Your task to perform on an android device: Open Yahoo.com Image 0: 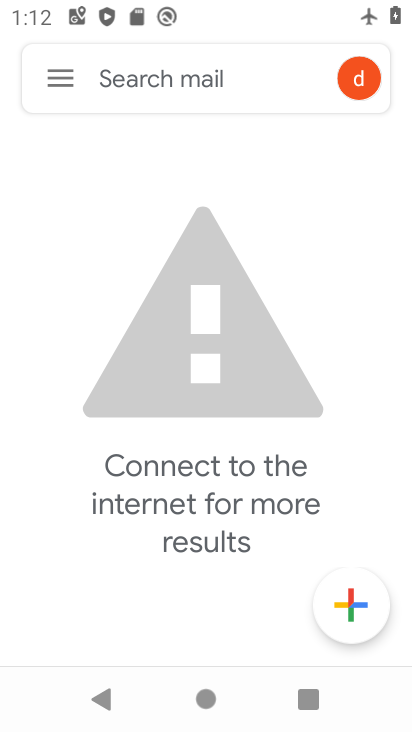
Step 0: press home button
Your task to perform on an android device: Open Yahoo.com Image 1: 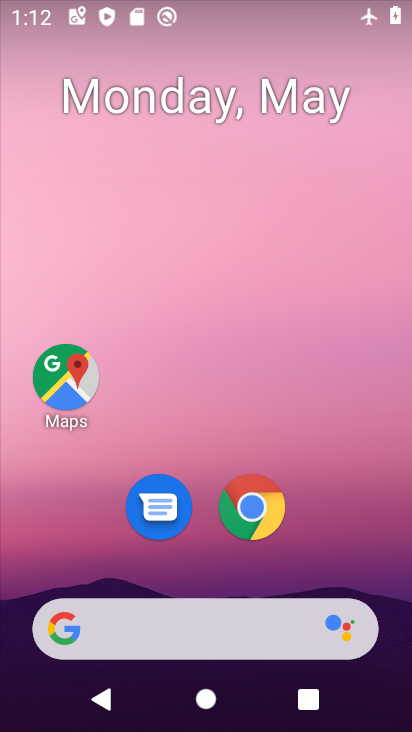
Step 1: click (257, 527)
Your task to perform on an android device: Open Yahoo.com Image 2: 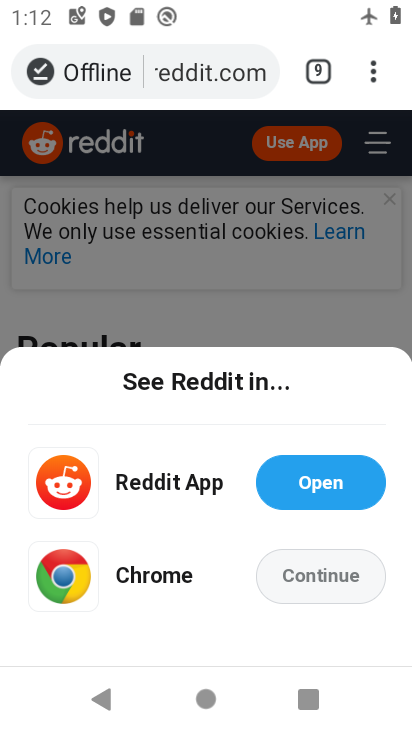
Step 2: click (377, 75)
Your task to perform on an android device: Open Yahoo.com Image 3: 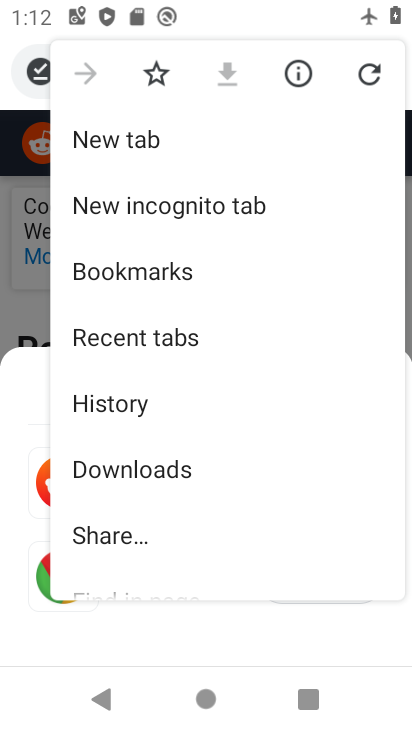
Step 3: click (117, 135)
Your task to perform on an android device: Open Yahoo.com Image 4: 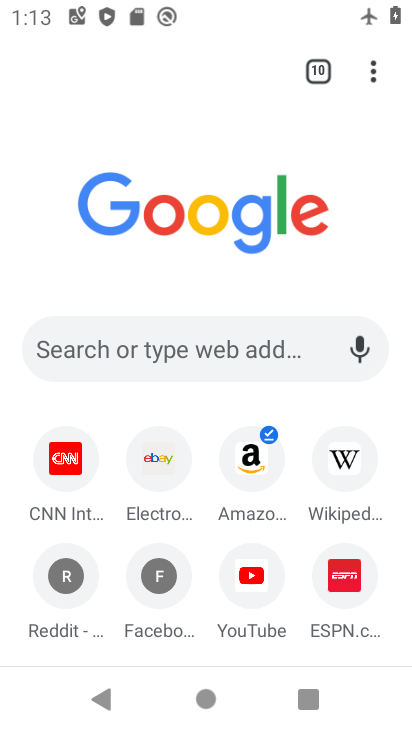
Step 4: click (186, 353)
Your task to perform on an android device: Open Yahoo.com Image 5: 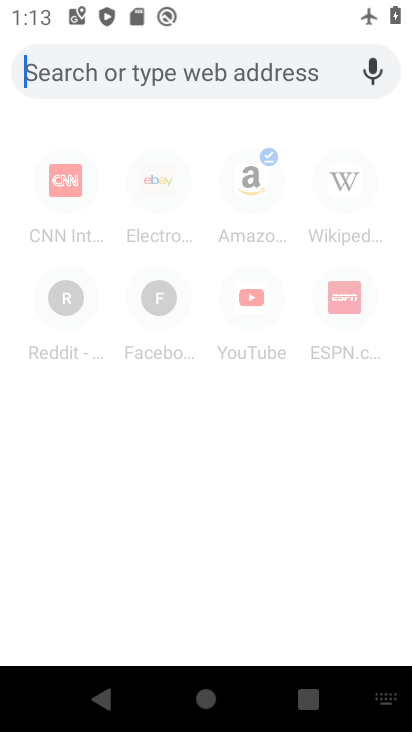
Step 5: type "Yahoo.com"
Your task to perform on an android device: Open Yahoo.com Image 6: 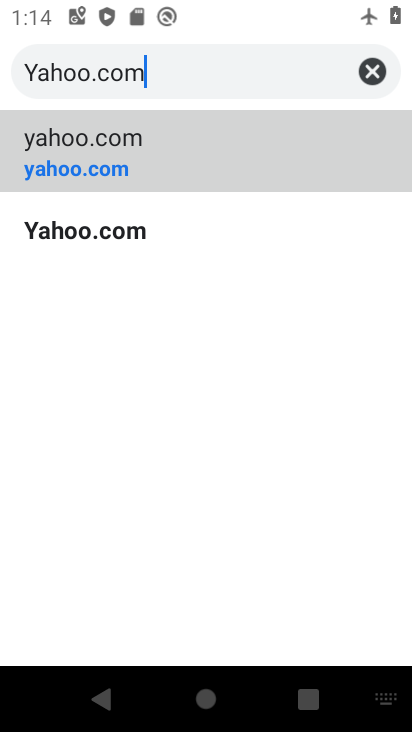
Step 6: click (169, 149)
Your task to perform on an android device: Open Yahoo.com Image 7: 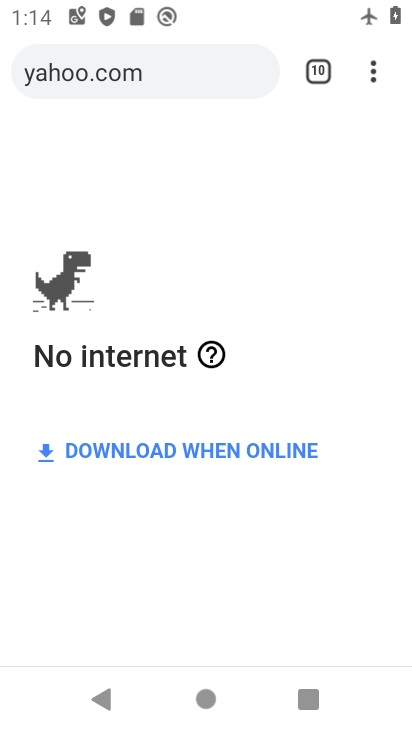
Step 7: task complete